Your task to perform on an android device: check android version Image 0: 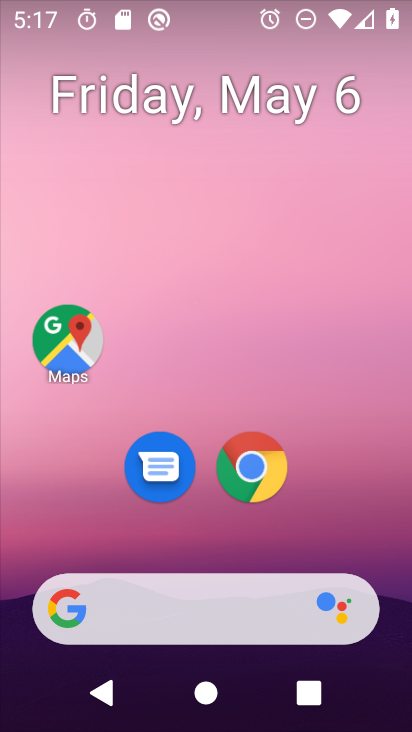
Step 0: click (352, 150)
Your task to perform on an android device: check android version Image 1: 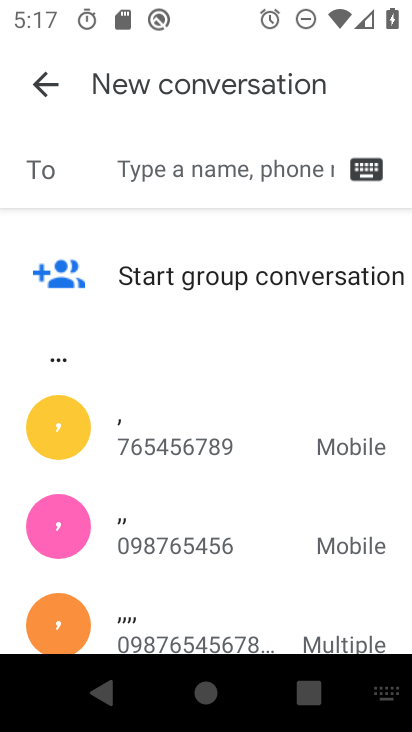
Step 1: click (45, 77)
Your task to perform on an android device: check android version Image 2: 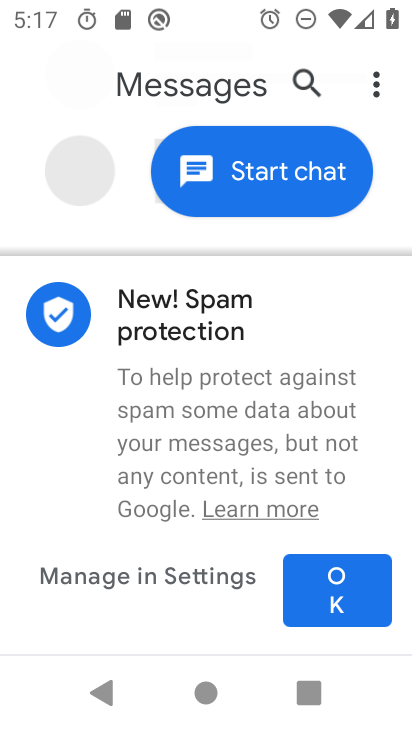
Step 2: press home button
Your task to perform on an android device: check android version Image 3: 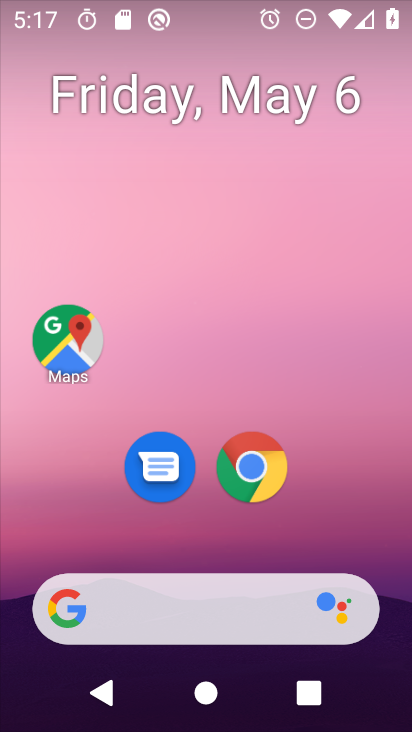
Step 3: drag from (354, 503) to (279, 15)
Your task to perform on an android device: check android version Image 4: 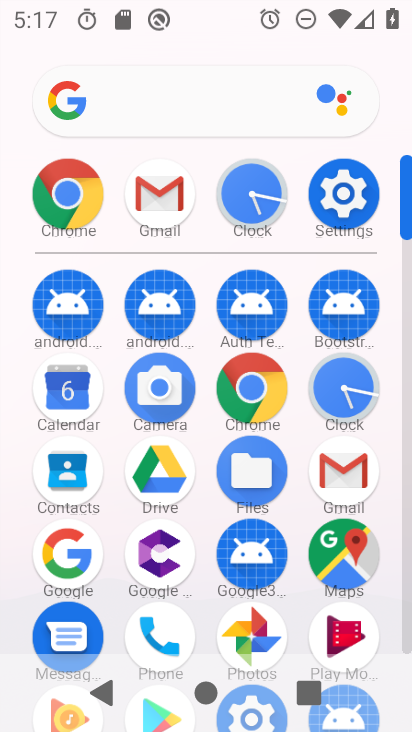
Step 4: click (343, 198)
Your task to perform on an android device: check android version Image 5: 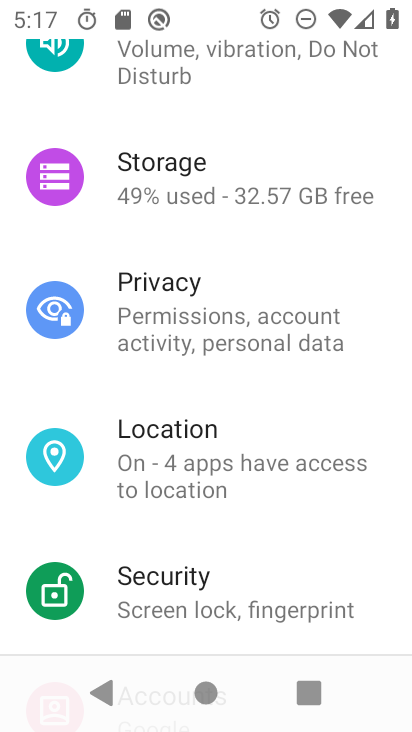
Step 5: drag from (222, 543) to (232, 81)
Your task to perform on an android device: check android version Image 6: 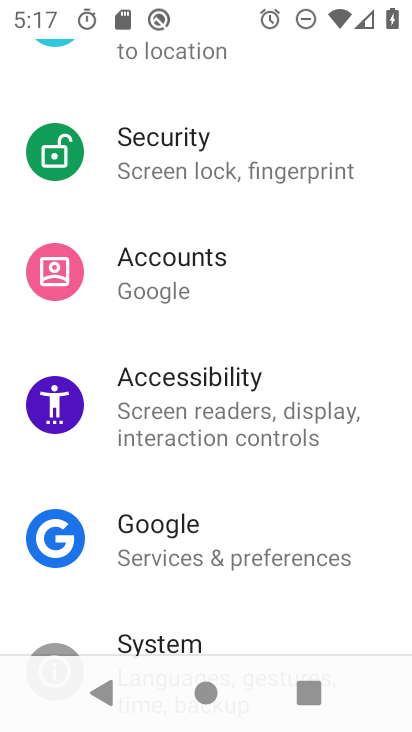
Step 6: drag from (171, 603) to (258, 73)
Your task to perform on an android device: check android version Image 7: 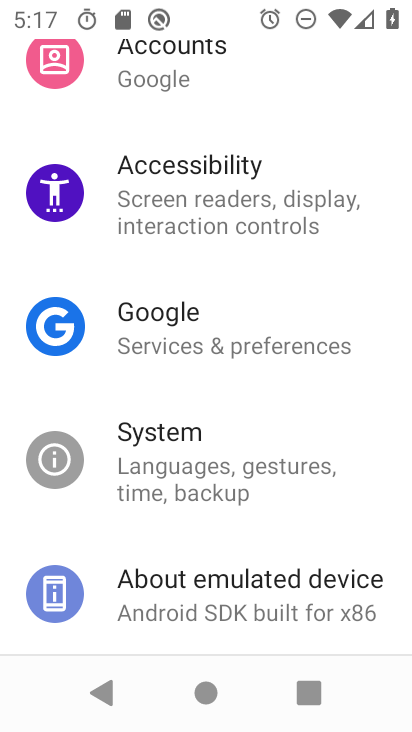
Step 7: click (201, 641)
Your task to perform on an android device: check android version Image 8: 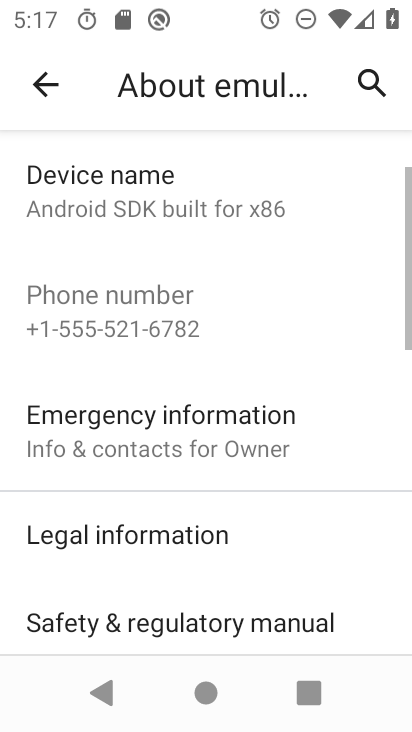
Step 8: drag from (204, 575) to (283, 36)
Your task to perform on an android device: check android version Image 9: 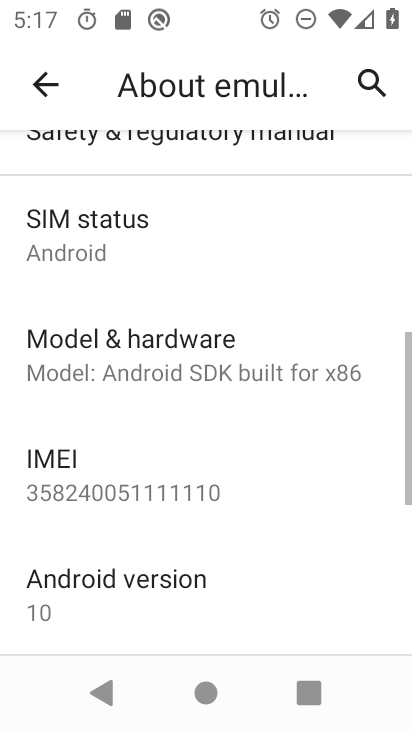
Step 9: drag from (168, 499) to (176, 200)
Your task to perform on an android device: check android version Image 10: 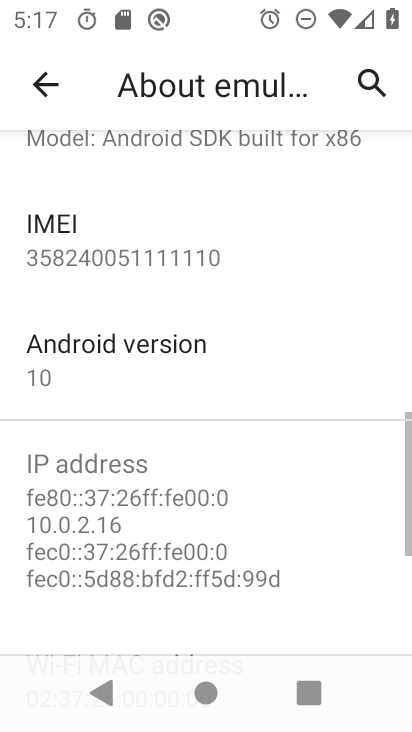
Step 10: click (104, 362)
Your task to perform on an android device: check android version Image 11: 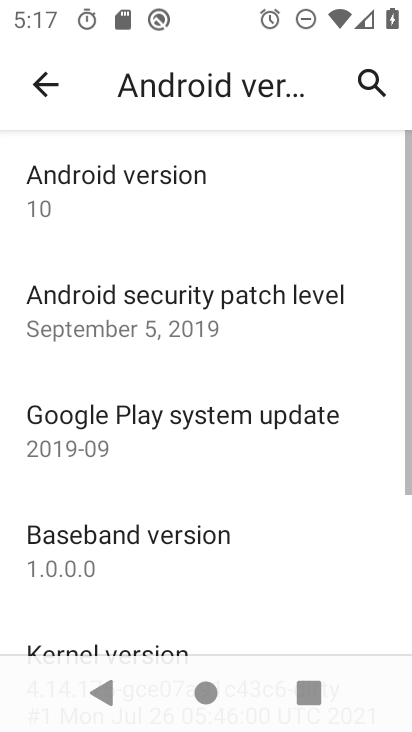
Step 11: task complete